Your task to perform on an android device: star an email in the gmail app Image 0: 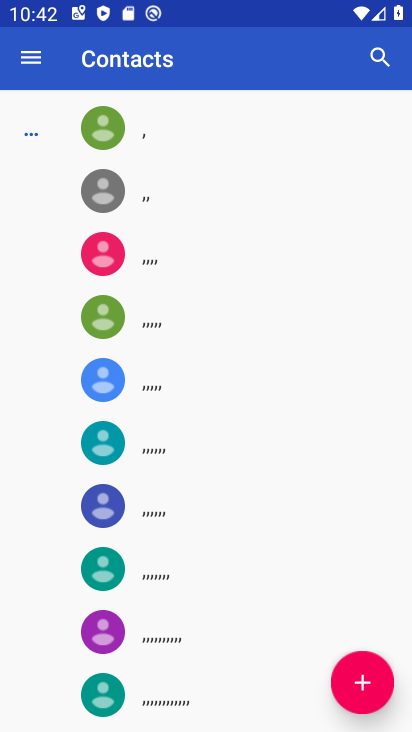
Step 0: press home button
Your task to perform on an android device: star an email in the gmail app Image 1: 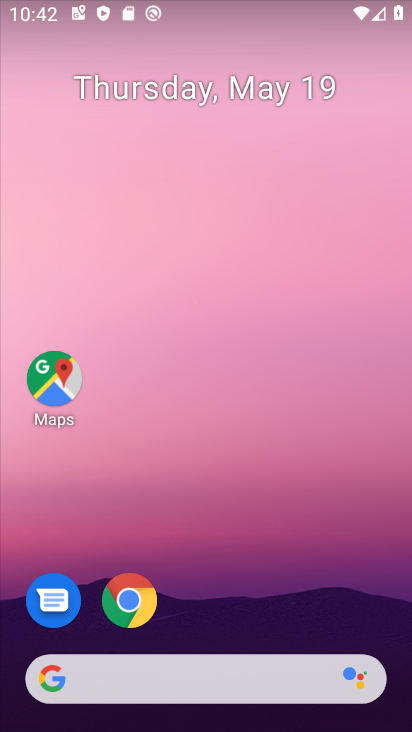
Step 1: drag from (330, 591) to (369, 77)
Your task to perform on an android device: star an email in the gmail app Image 2: 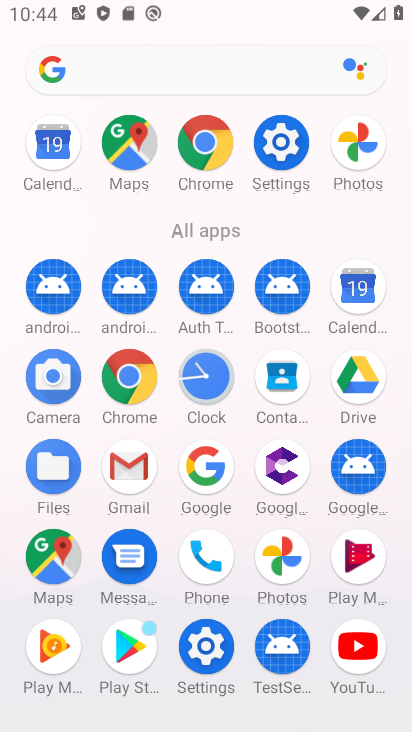
Step 2: click (126, 478)
Your task to perform on an android device: star an email in the gmail app Image 3: 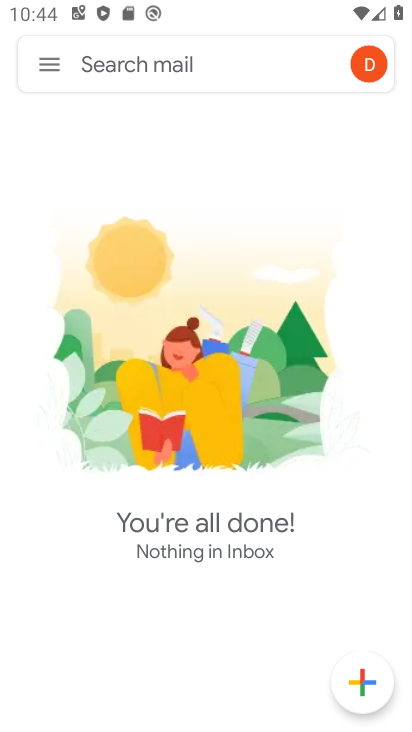
Step 3: click (56, 70)
Your task to perform on an android device: star an email in the gmail app Image 4: 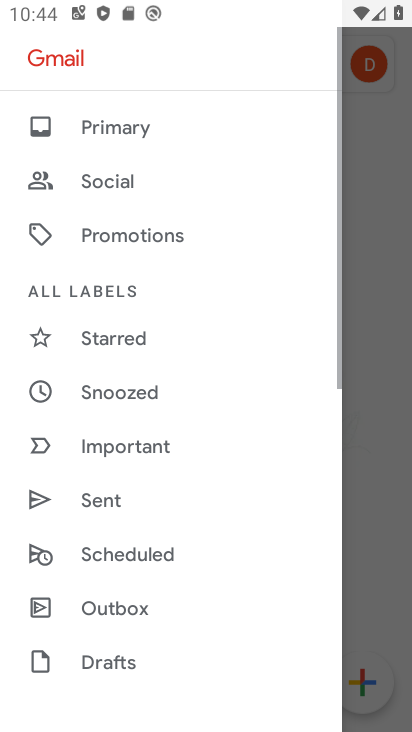
Step 4: task complete